Your task to perform on an android device: turn off wifi Image 0: 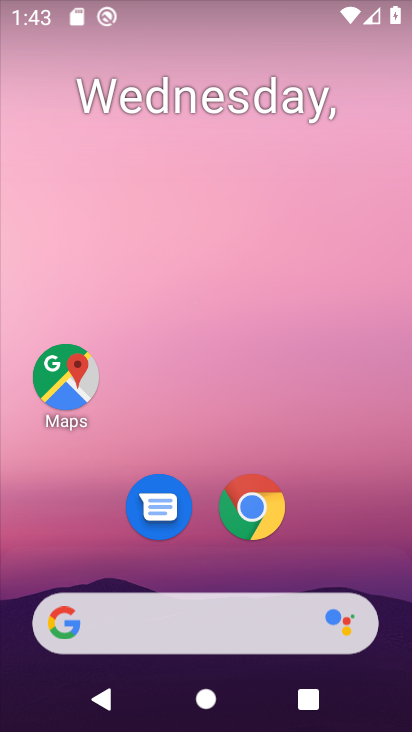
Step 0: drag from (304, 573) to (317, 0)
Your task to perform on an android device: turn off wifi Image 1: 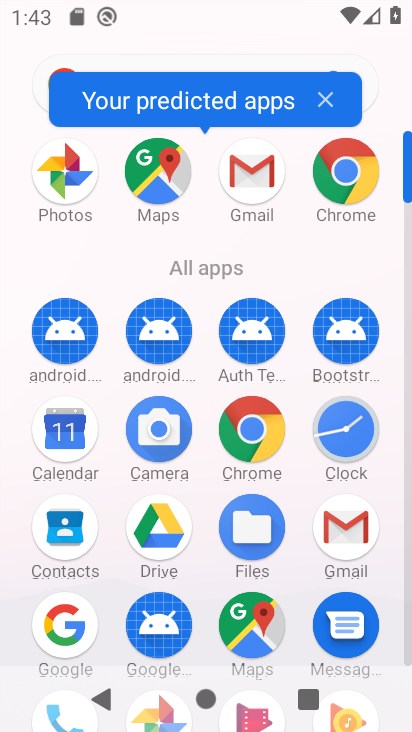
Step 1: drag from (206, 502) to (261, 255)
Your task to perform on an android device: turn off wifi Image 2: 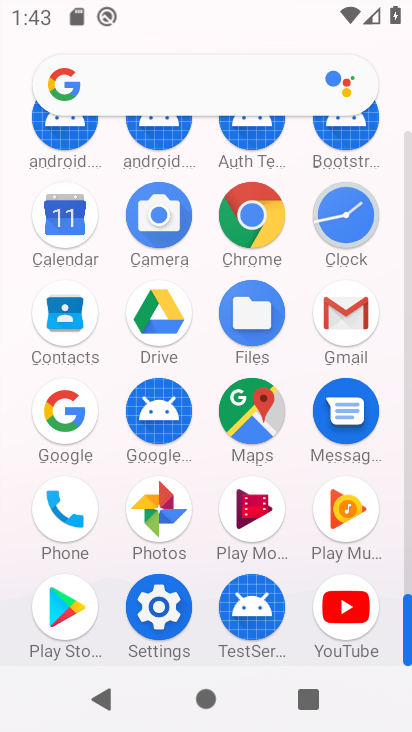
Step 2: click (147, 600)
Your task to perform on an android device: turn off wifi Image 3: 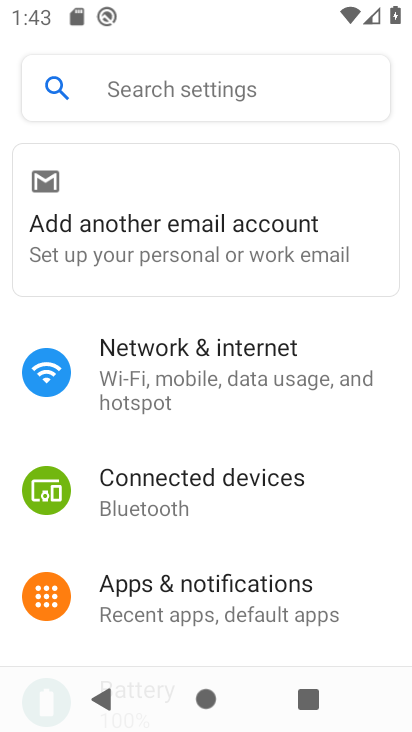
Step 3: click (181, 371)
Your task to perform on an android device: turn off wifi Image 4: 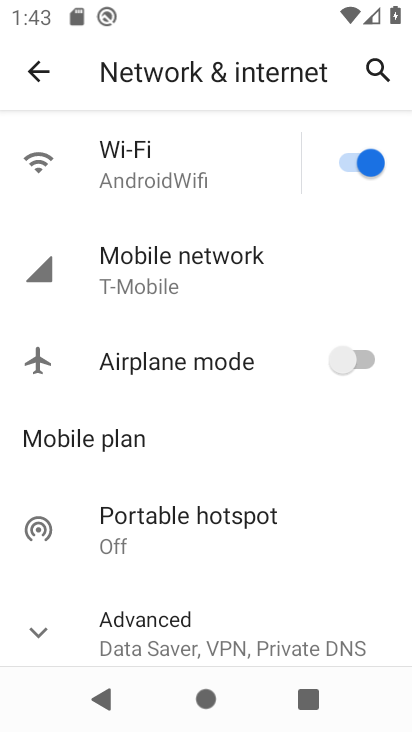
Step 4: click (358, 163)
Your task to perform on an android device: turn off wifi Image 5: 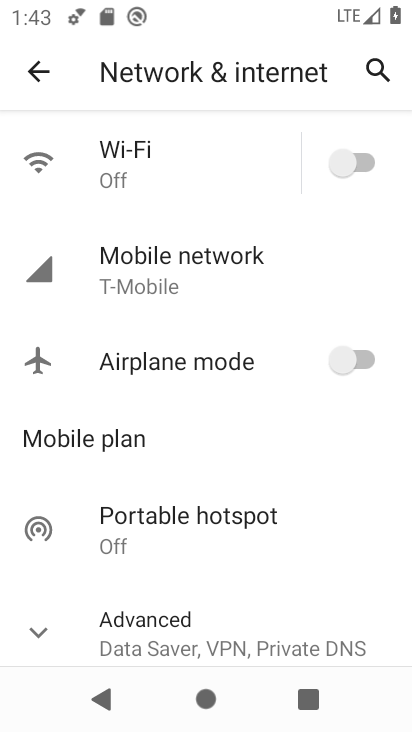
Step 5: task complete